Your task to perform on an android device: check data usage Image 0: 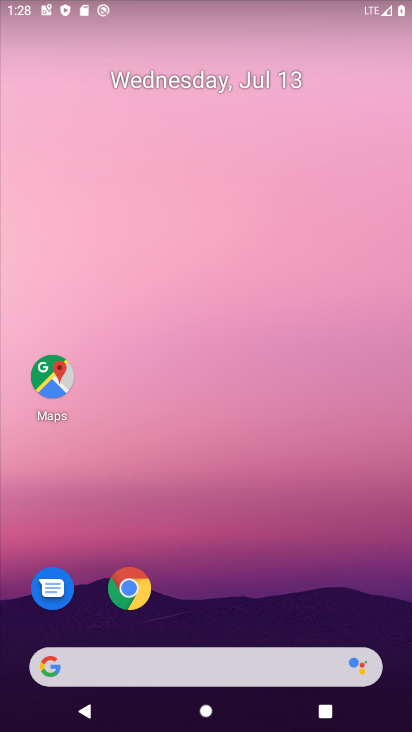
Step 0: drag from (388, 619) to (333, 193)
Your task to perform on an android device: check data usage Image 1: 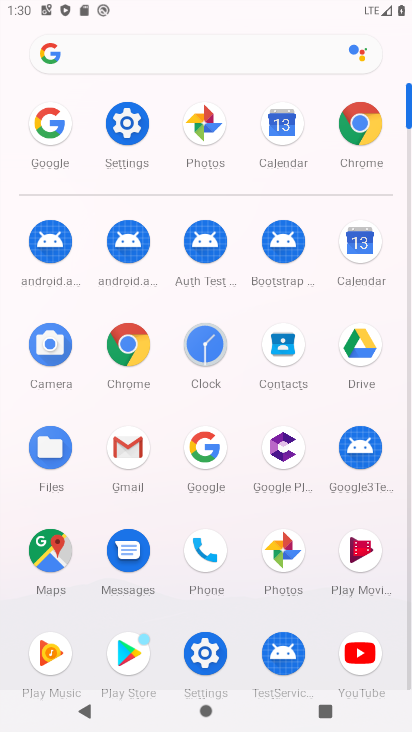
Step 1: click (132, 127)
Your task to perform on an android device: check data usage Image 2: 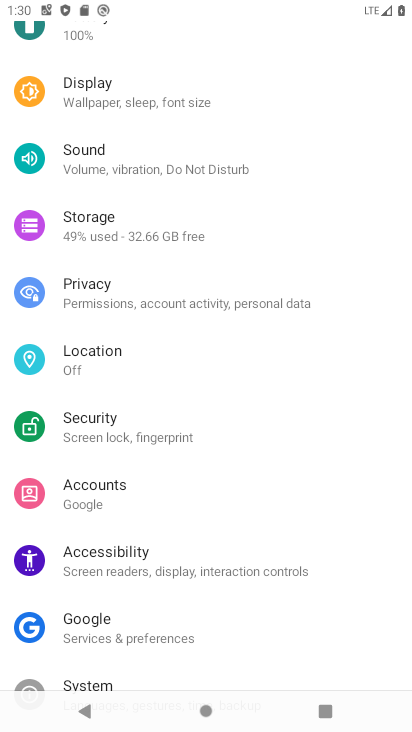
Step 2: drag from (290, 135) to (275, 541)
Your task to perform on an android device: check data usage Image 3: 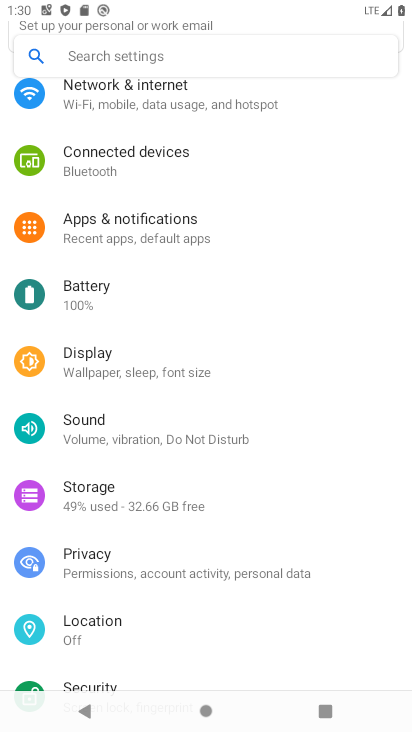
Step 3: click (123, 102)
Your task to perform on an android device: check data usage Image 4: 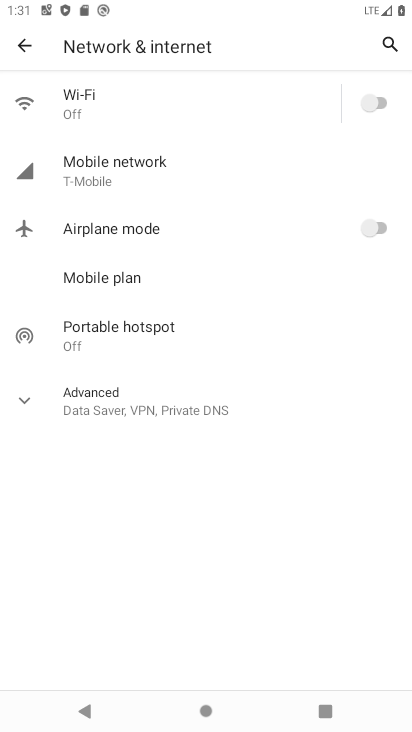
Step 4: click (83, 163)
Your task to perform on an android device: check data usage Image 5: 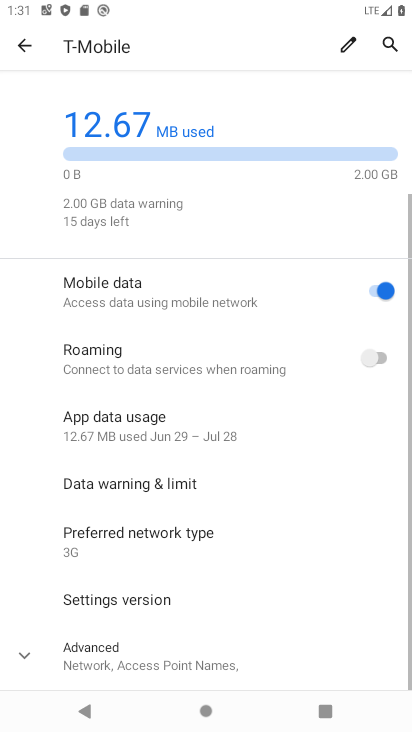
Step 5: task complete